Your task to perform on an android device: clear history in the chrome app Image 0: 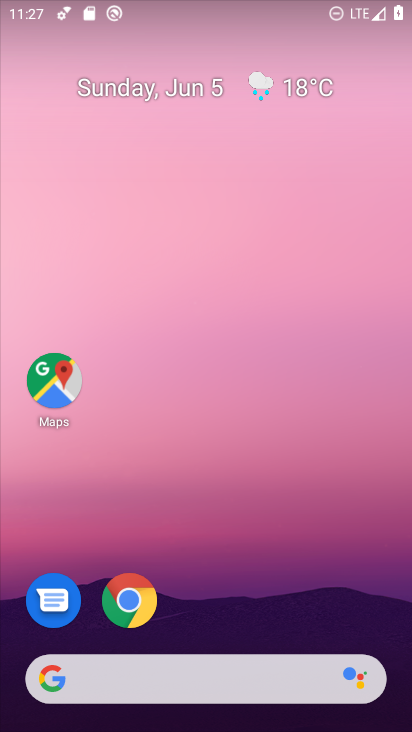
Step 0: click (121, 606)
Your task to perform on an android device: clear history in the chrome app Image 1: 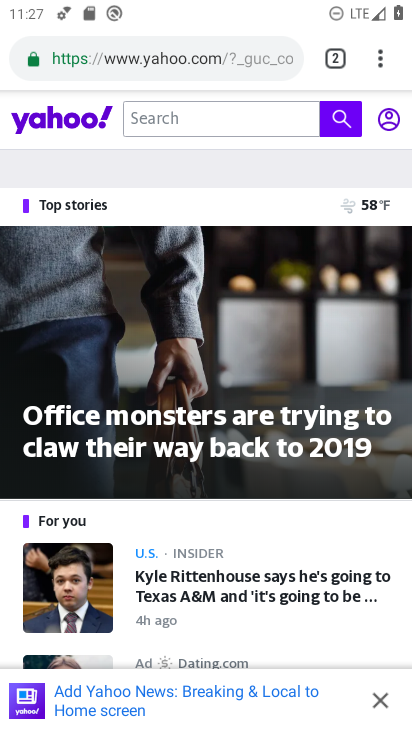
Step 1: drag from (373, 62) to (184, 332)
Your task to perform on an android device: clear history in the chrome app Image 2: 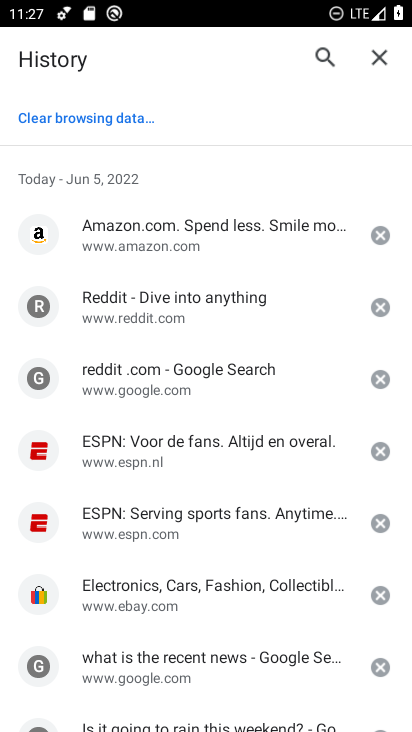
Step 2: click (106, 118)
Your task to perform on an android device: clear history in the chrome app Image 3: 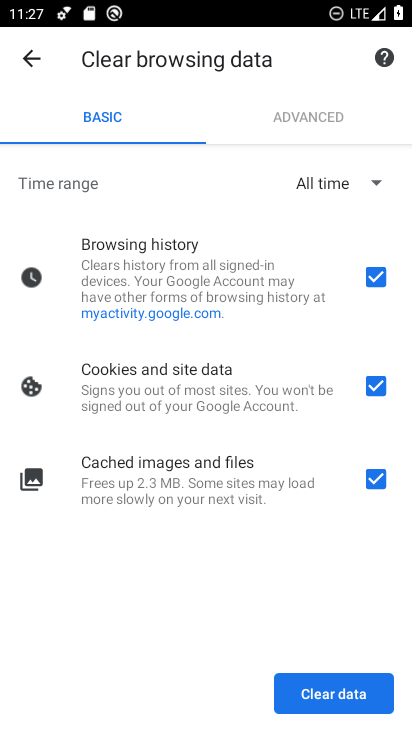
Step 3: click (291, 692)
Your task to perform on an android device: clear history in the chrome app Image 4: 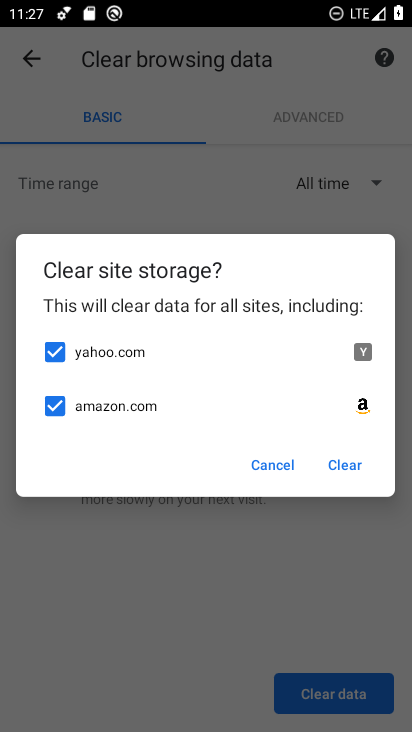
Step 4: click (335, 466)
Your task to perform on an android device: clear history in the chrome app Image 5: 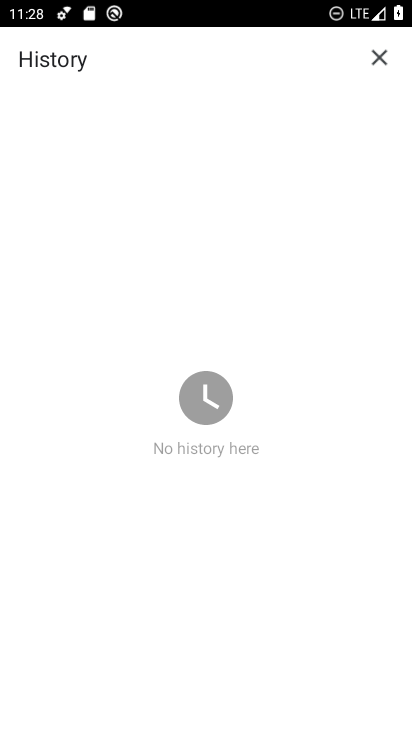
Step 5: task complete